Your task to perform on an android device: Open the phone app and click the voicemail tab. Image 0: 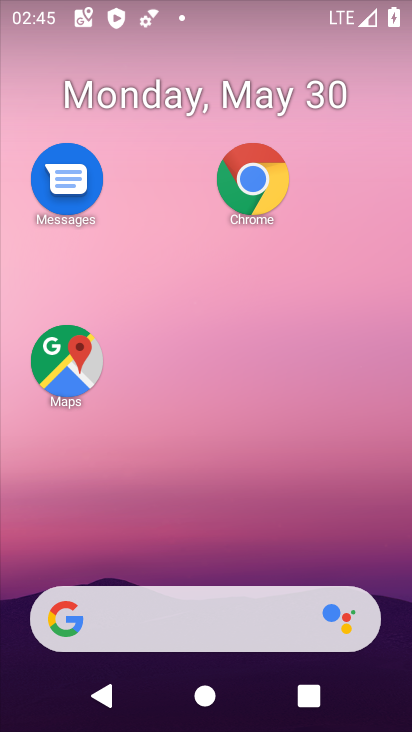
Step 0: drag from (214, 565) to (217, 11)
Your task to perform on an android device: Open the phone app and click the voicemail tab. Image 1: 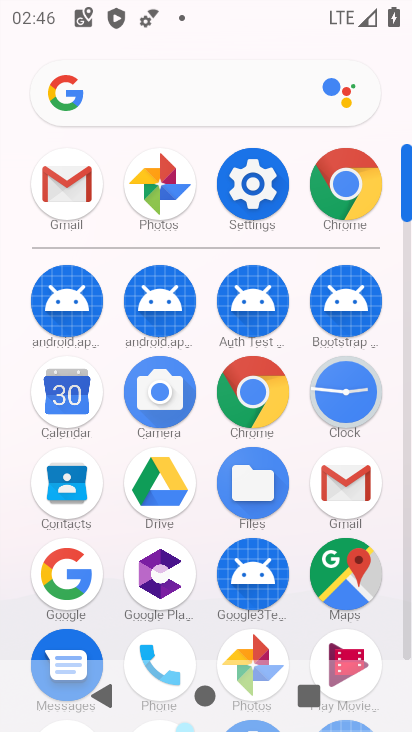
Step 1: click (152, 639)
Your task to perform on an android device: Open the phone app and click the voicemail tab. Image 2: 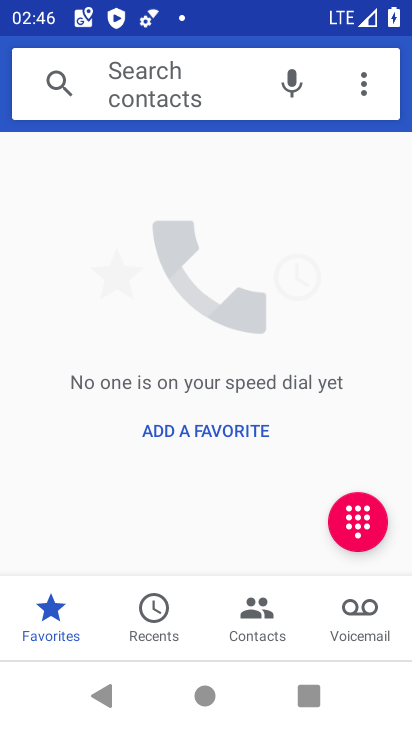
Step 2: click (365, 626)
Your task to perform on an android device: Open the phone app and click the voicemail tab. Image 3: 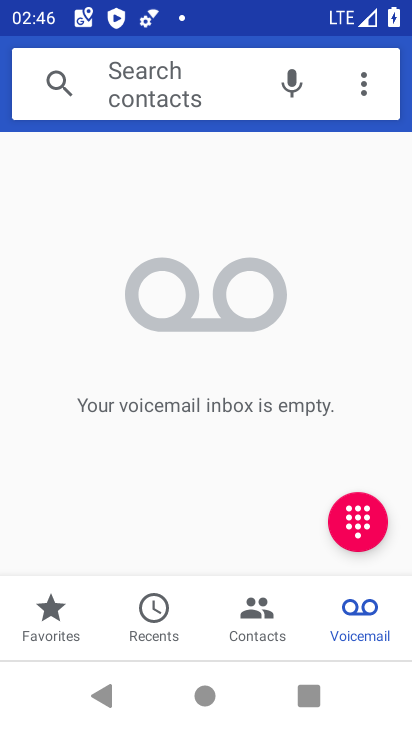
Step 3: task complete